Your task to perform on an android device: turn on notifications settings in the gmail app Image 0: 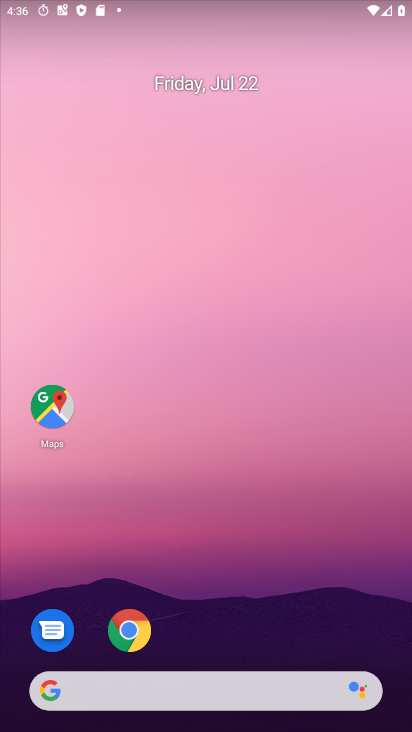
Step 0: drag from (205, 689) to (191, 67)
Your task to perform on an android device: turn on notifications settings in the gmail app Image 1: 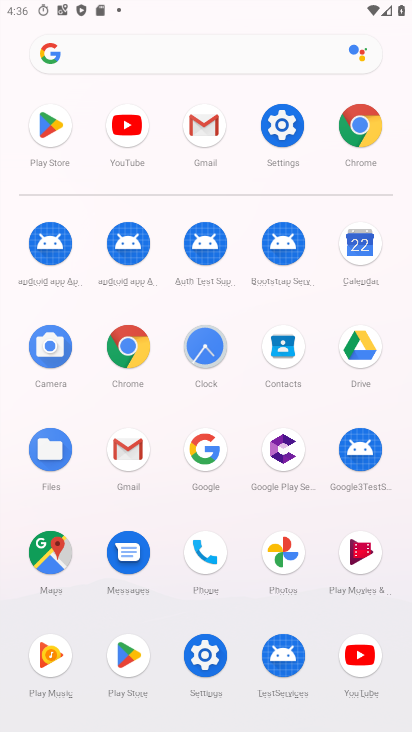
Step 1: click (145, 448)
Your task to perform on an android device: turn on notifications settings in the gmail app Image 2: 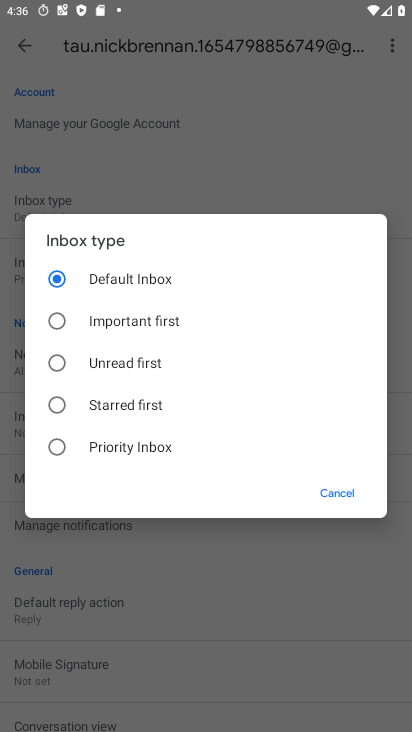
Step 2: click (348, 489)
Your task to perform on an android device: turn on notifications settings in the gmail app Image 3: 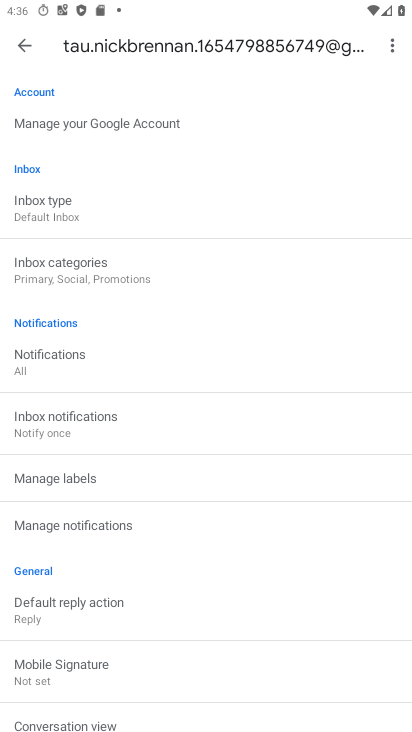
Step 3: click (60, 525)
Your task to perform on an android device: turn on notifications settings in the gmail app Image 4: 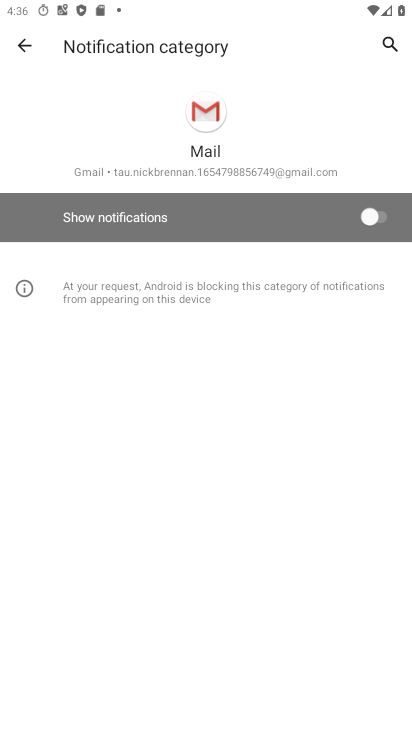
Step 4: click (375, 217)
Your task to perform on an android device: turn on notifications settings in the gmail app Image 5: 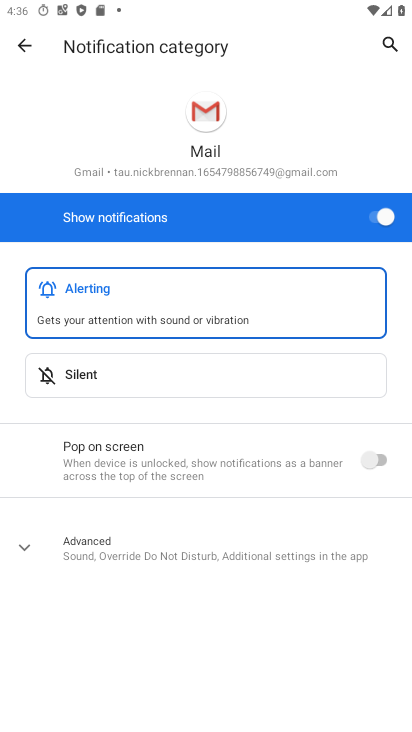
Step 5: task complete